Your task to perform on an android device: Go to calendar. Show me events next week Image 0: 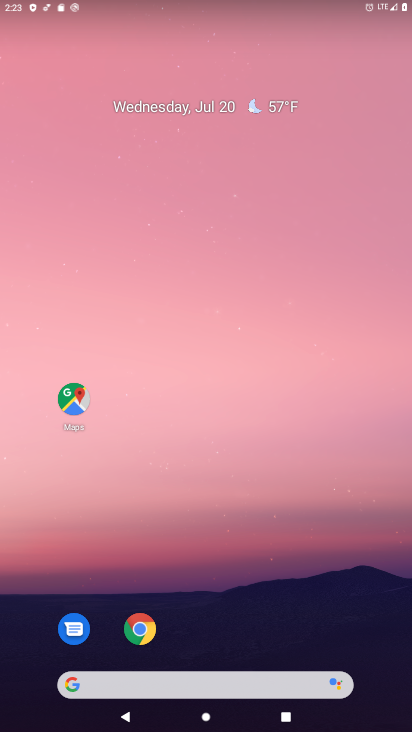
Step 0: drag from (390, 660) to (323, 139)
Your task to perform on an android device: Go to calendar. Show me events next week Image 1: 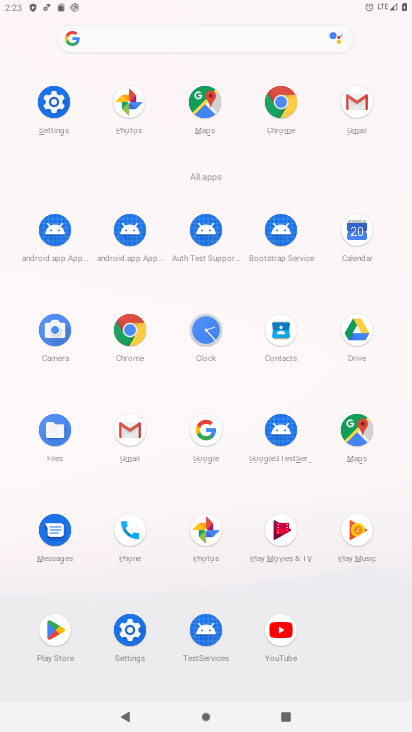
Step 1: click (357, 231)
Your task to perform on an android device: Go to calendar. Show me events next week Image 2: 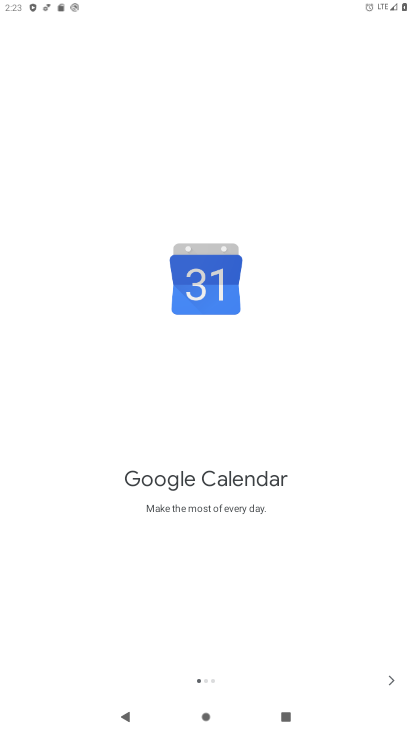
Step 2: click (391, 679)
Your task to perform on an android device: Go to calendar. Show me events next week Image 3: 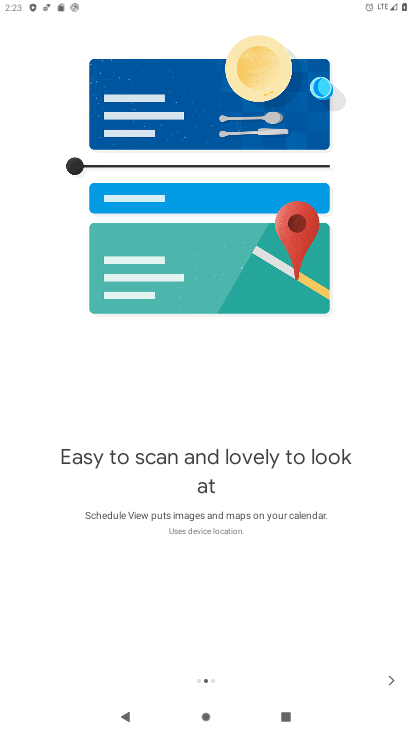
Step 3: click (391, 679)
Your task to perform on an android device: Go to calendar. Show me events next week Image 4: 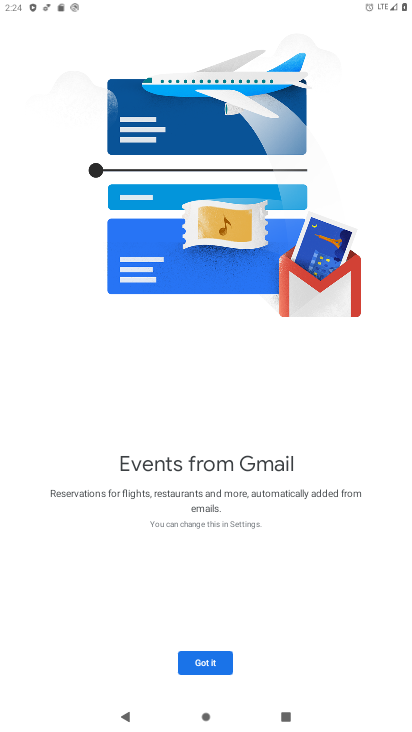
Step 4: click (201, 663)
Your task to perform on an android device: Go to calendar. Show me events next week Image 5: 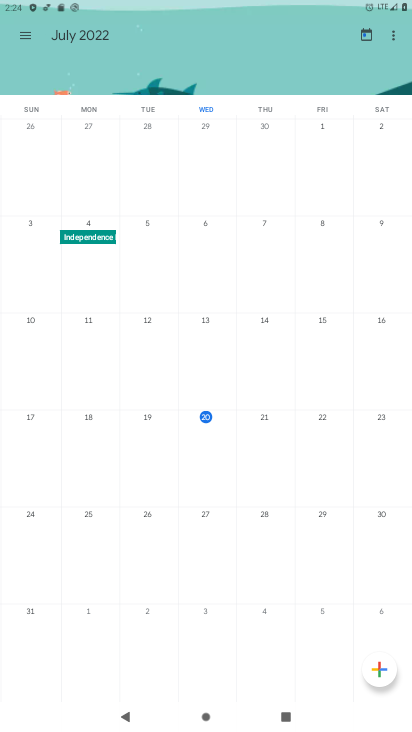
Step 5: click (22, 37)
Your task to perform on an android device: Go to calendar. Show me events next week Image 6: 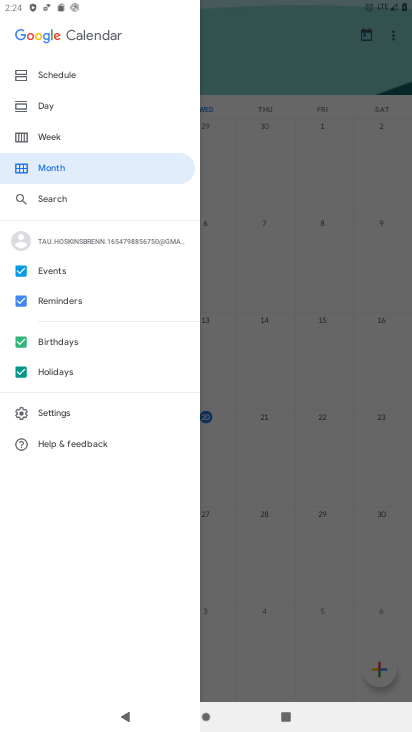
Step 6: click (48, 136)
Your task to perform on an android device: Go to calendar. Show me events next week Image 7: 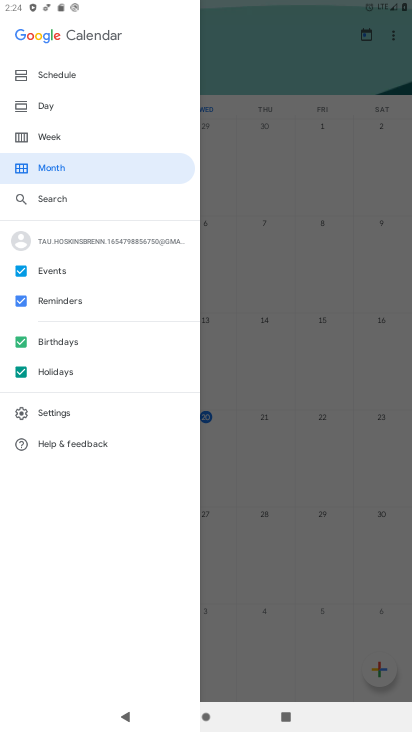
Step 7: click (51, 136)
Your task to perform on an android device: Go to calendar. Show me events next week Image 8: 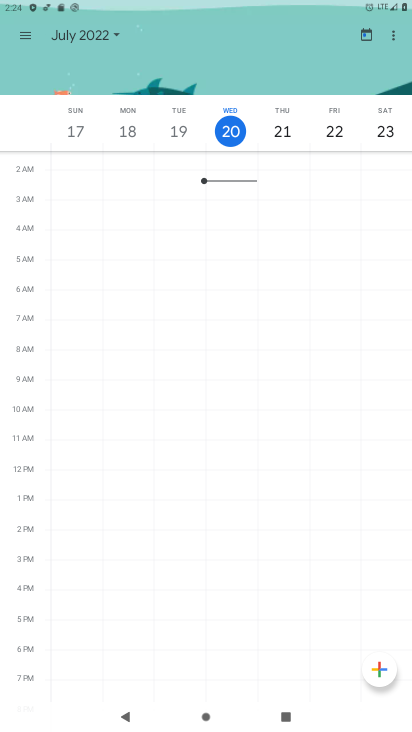
Step 8: click (113, 29)
Your task to perform on an android device: Go to calendar. Show me events next week Image 9: 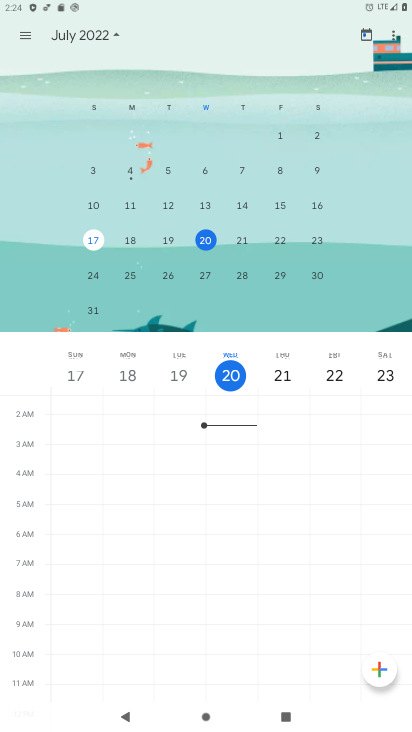
Step 9: click (91, 274)
Your task to perform on an android device: Go to calendar. Show me events next week Image 10: 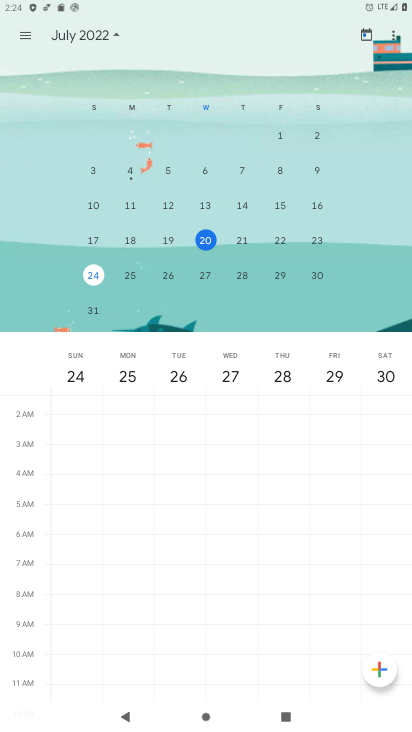
Step 10: task complete